Your task to perform on an android device: check android version Image 0: 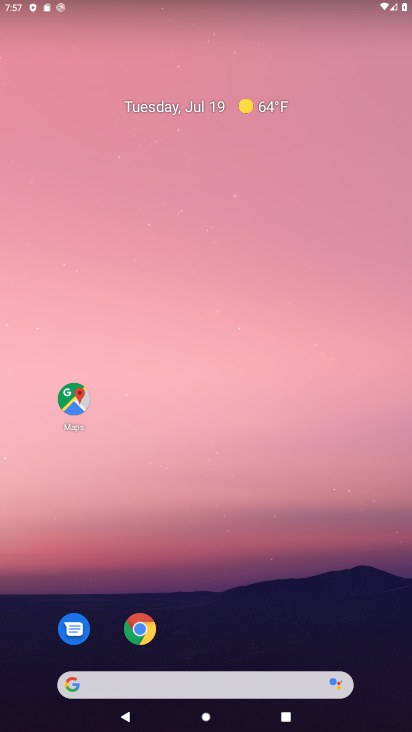
Step 0: drag from (184, 641) to (336, 5)
Your task to perform on an android device: check android version Image 1: 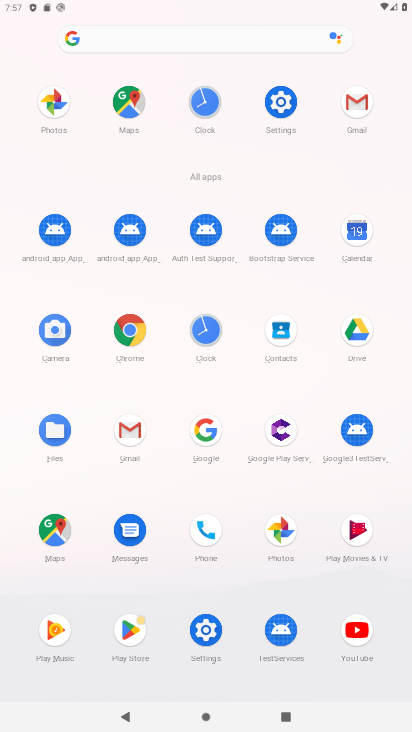
Step 1: click (191, 628)
Your task to perform on an android device: check android version Image 2: 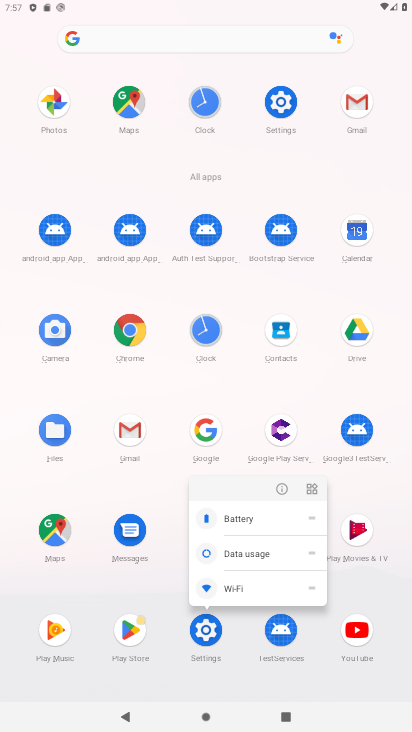
Step 2: click (275, 490)
Your task to perform on an android device: check android version Image 3: 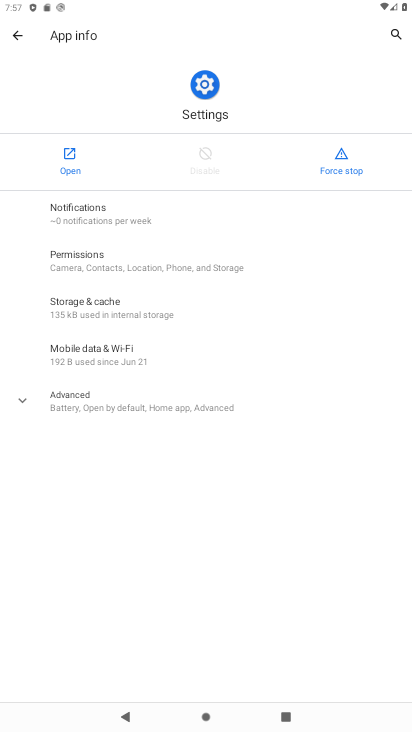
Step 3: click (72, 151)
Your task to perform on an android device: check android version Image 4: 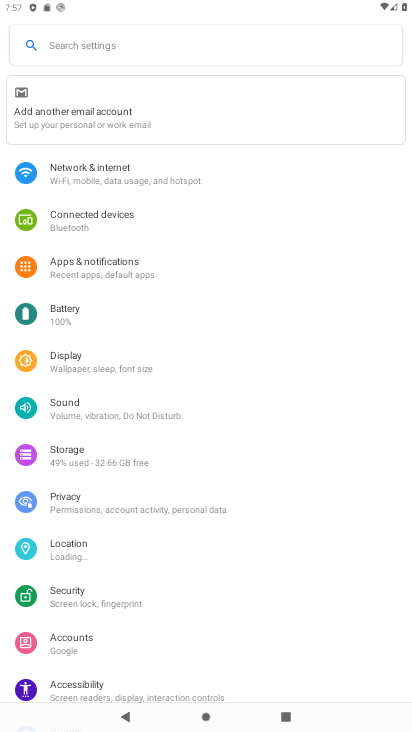
Step 4: drag from (147, 607) to (171, 254)
Your task to perform on an android device: check android version Image 5: 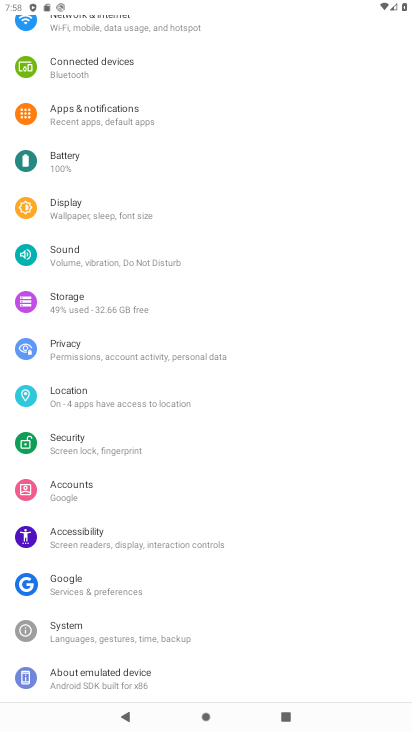
Step 5: drag from (229, 611) to (301, 268)
Your task to perform on an android device: check android version Image 6: 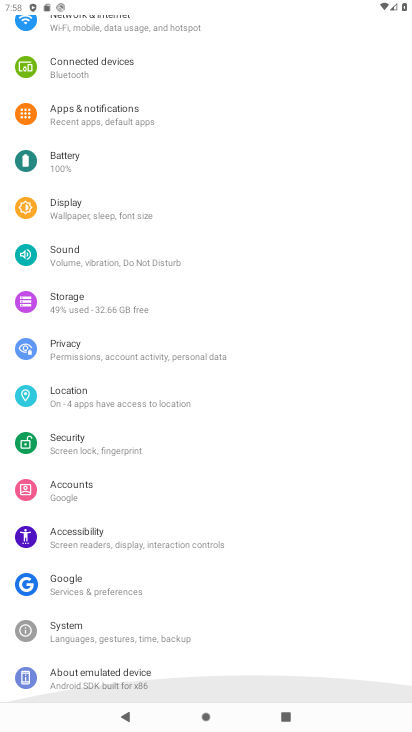
Step 6: drag from (237, 332) to (279, 729)
Your task to perform on an android device: check android version Image 7: 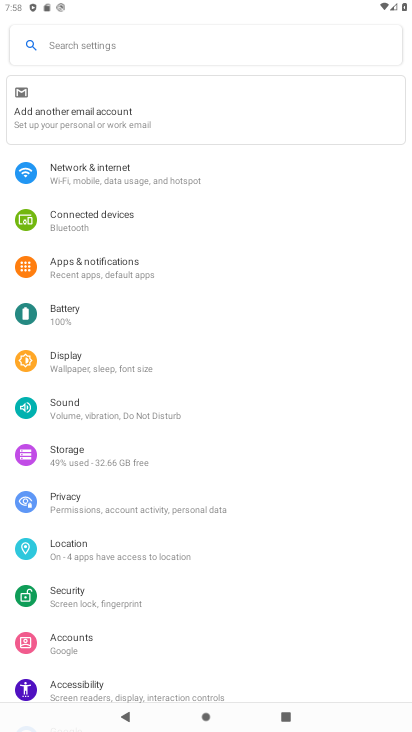
Step 7: drag from (256, 521) to (327, 89)
Your task to perform on an android device: check android version Image 8: 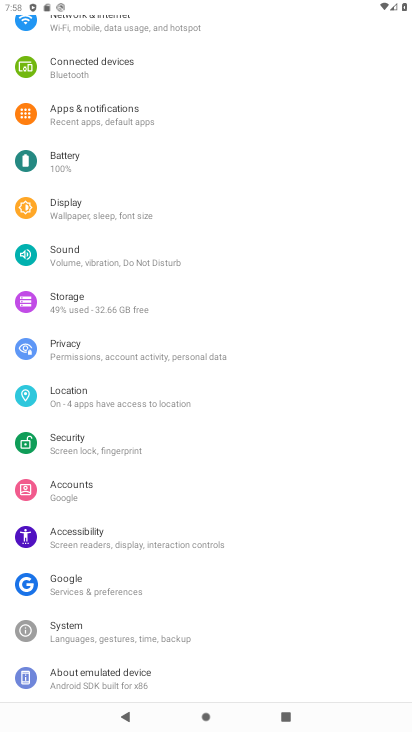
Step 8: drag from (197, 554) to (271, 306)
Your task to perform on an android device: check android version Image 9: 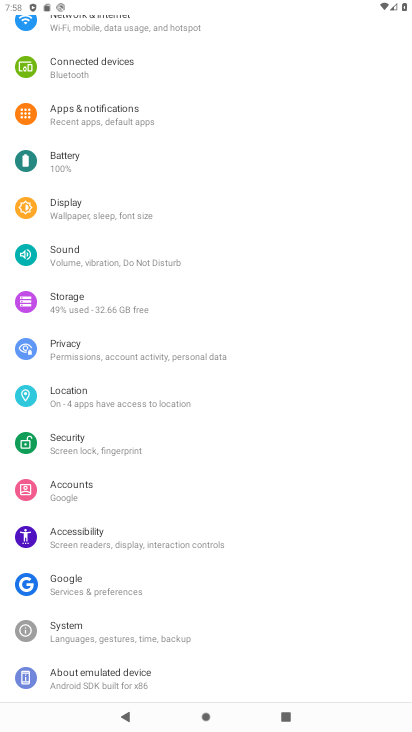
Step 9: drag from (231, 630) to (278, 282)
Your task to perform on an android device: check android version Image 10: 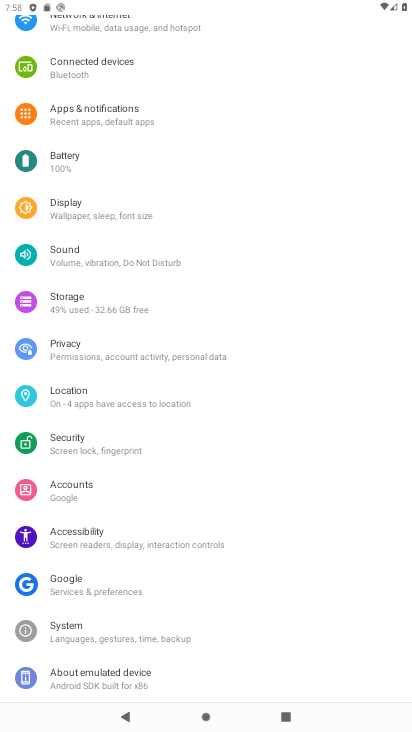
Step 10: click (136, 673)
Your task to perform on an android device: check android version Image 11: 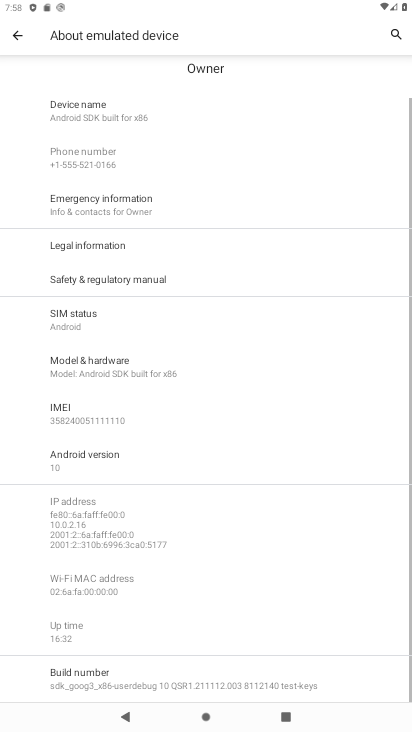
Step 11: drag from (186, 590) to (252, 389)
Your task to perform on an android device: check android version Image 12: 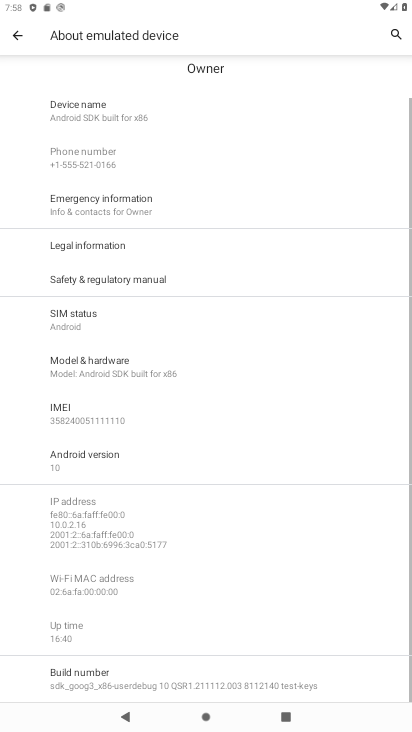
Step 12: drag from (225, 570) to (210, 301)
Your task to perform on an android device: check android version Image 13: 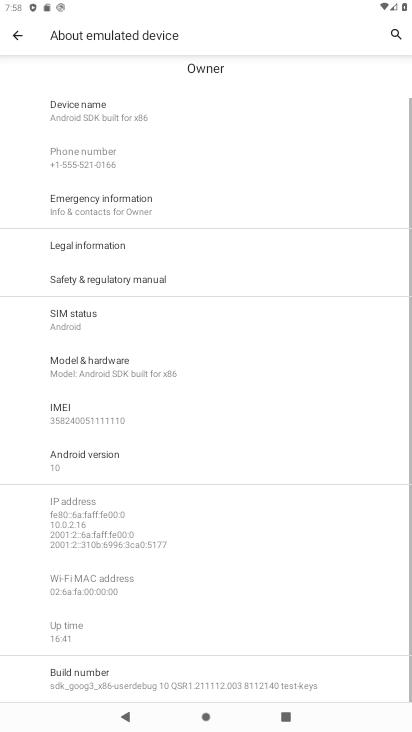
Step 13: drag from (128, 485) to (171, 317)
Your task to perform on an android device: check android version Image 14: 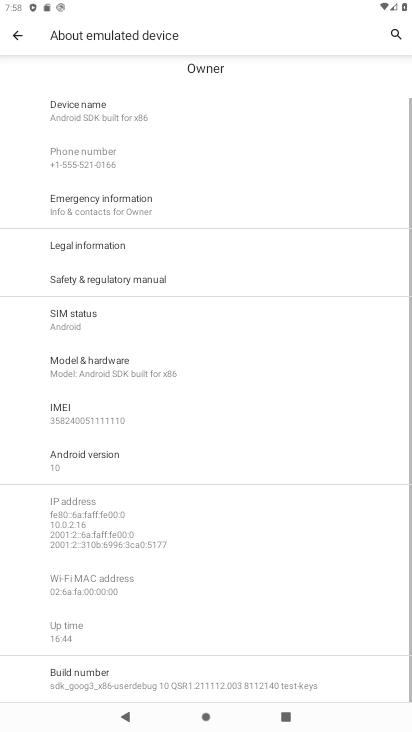
Step 14: drag from (282, 476) to (294, 235)
Your task to perform on an android device: check android version Image 15: 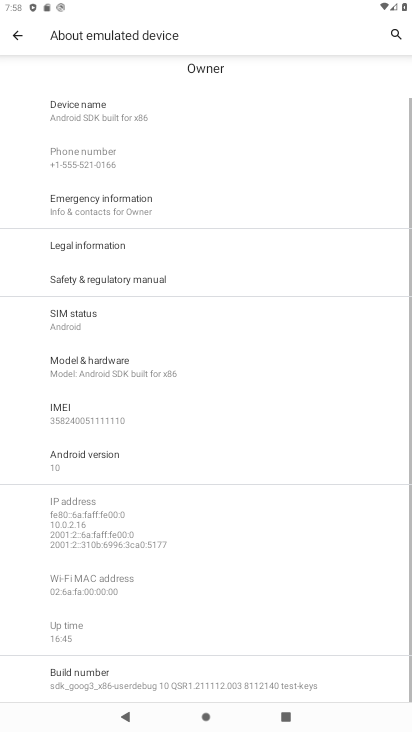
Step 15: click (83, 455)
Your task to perform on an android device: check android version Image 16: 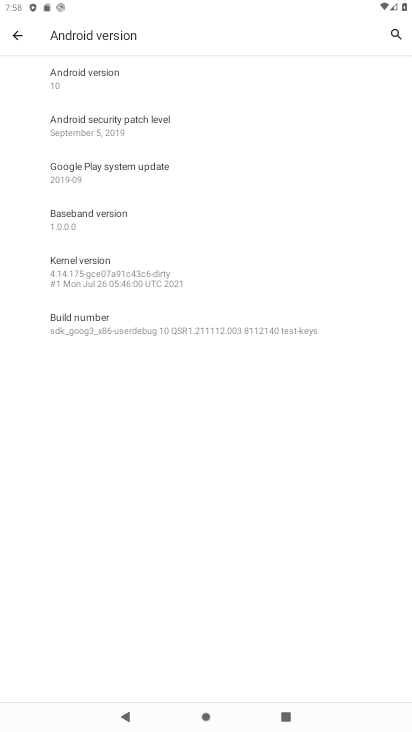
Step 16: task complete